Your task to perform on an android device: What's the weather today? Image 0: 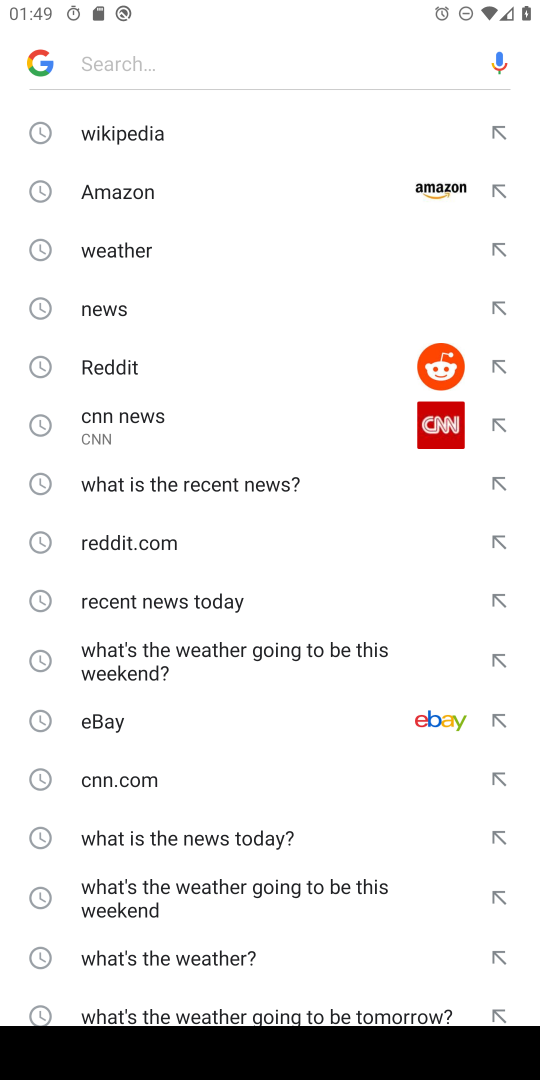
Step 0: press home button
Your task to perform on an android device: What's the weather today? Image 1: 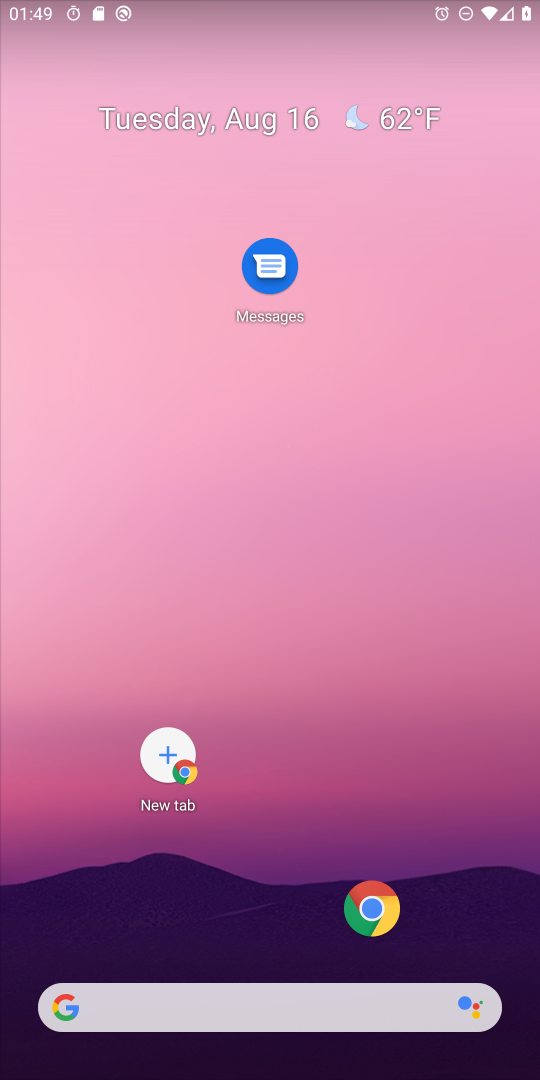
Step 1: click (427, 130)
Your task to perform on an android device: What's the weather today? Image 2: 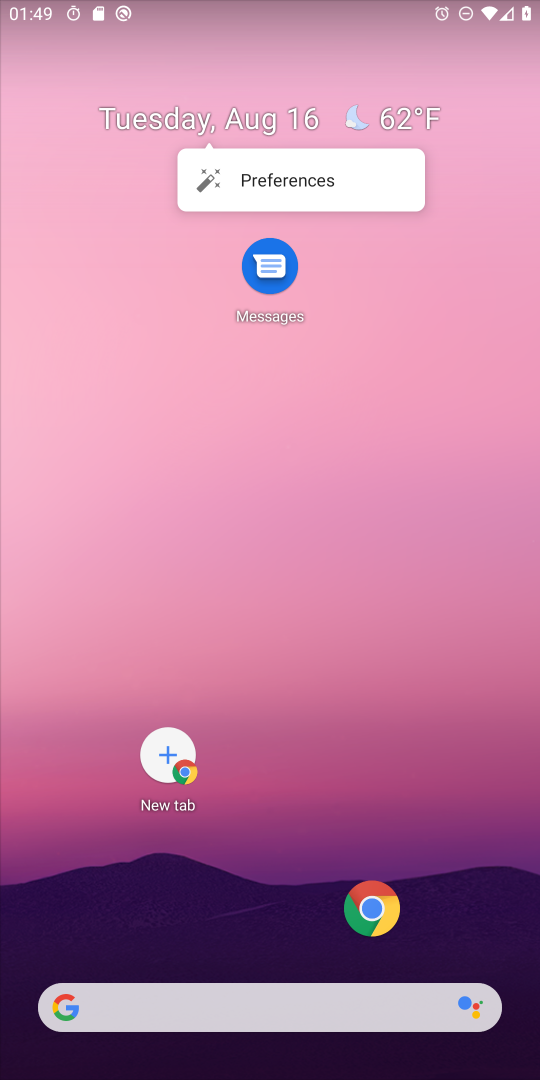
Step 2: click (381, 124)
Your task to perform on an android device: What's the weather today? Image 3: 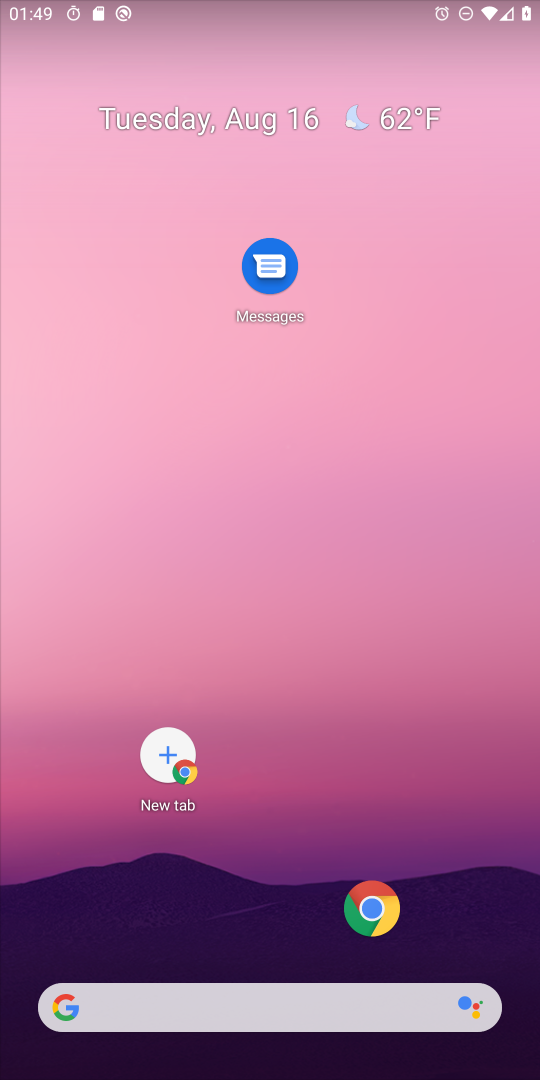
Step 3: click (396, 125)
Your task to perform on an android device: What's the weather today? Image 4: 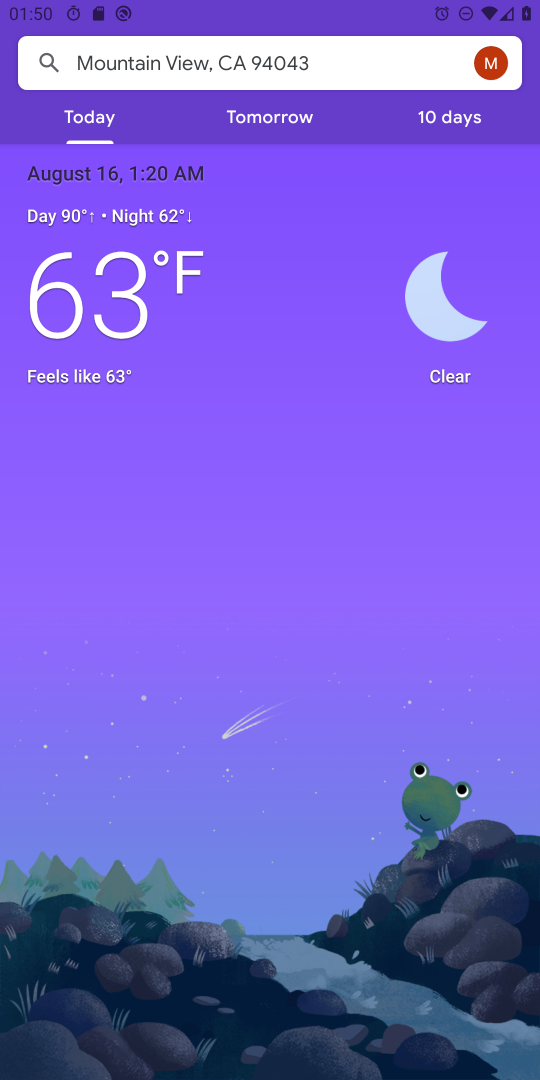
Step 4: task complete